Your task to perform on an android device: toggle notification dots Image 0: 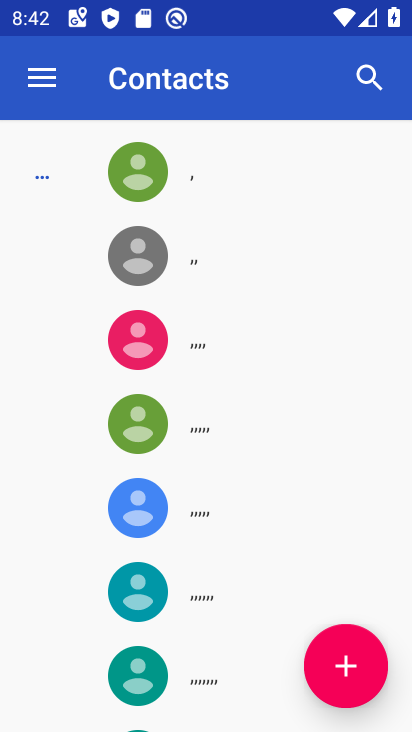
Step 0: press home button
Your task to perform on an android device: toggle notification dots Image 1: 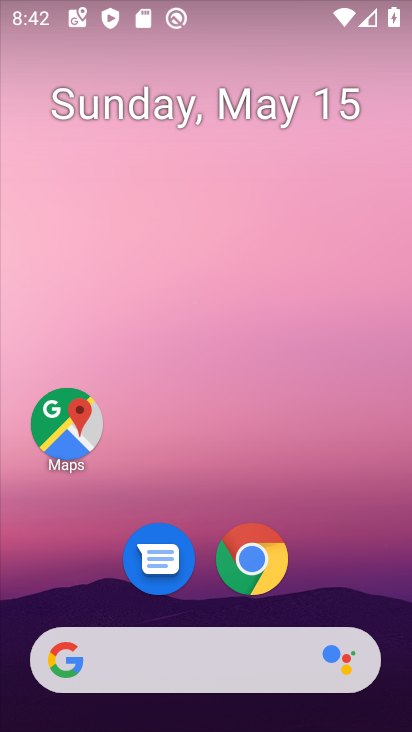
Step 1: drag from (368, 573) to (359, 180)
Your task to perform on an android device: toggle notification dots Image 2: 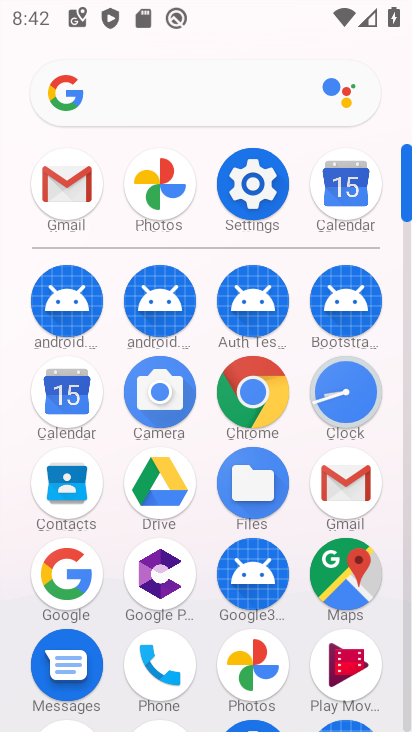
Step 2: click (243, 207)
Your task to perform on an android device: toggle notification dots Image 3: 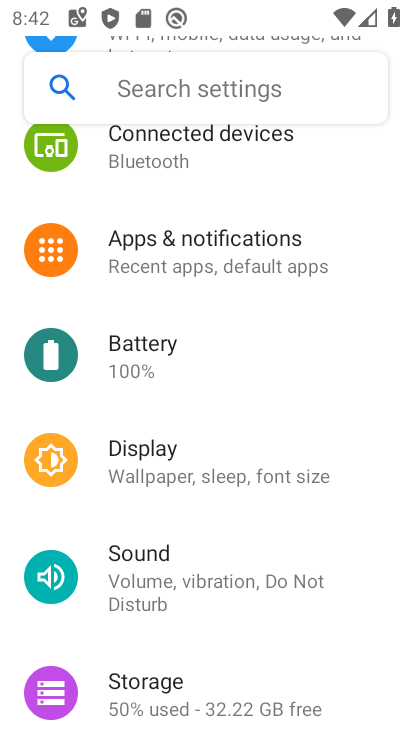
Step 3: drag from (205, 687) to (232, 581)
Your task to perform on an android device: toggle notification dots Image 4: 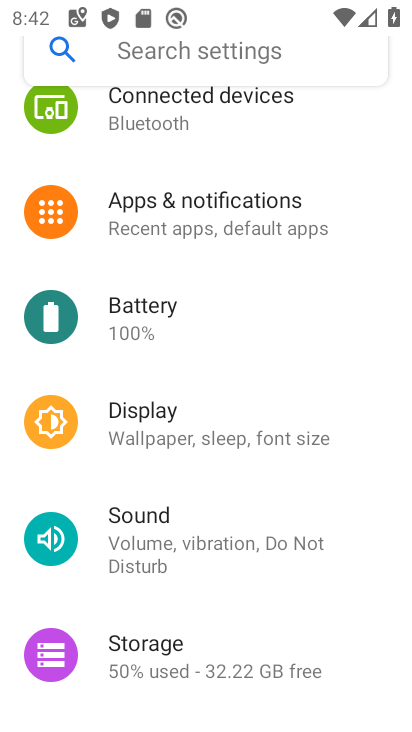
Step 4: click (232, 190)
Your task to perform on an android device: toggle notification dots Image 5: 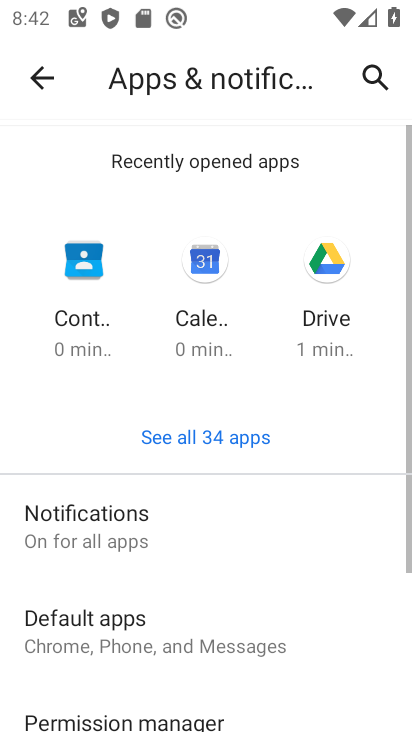
Step 5: drag from (210, 633) to (251, 439)
Your task to perform on an android device: toggle notification dots Image 6: 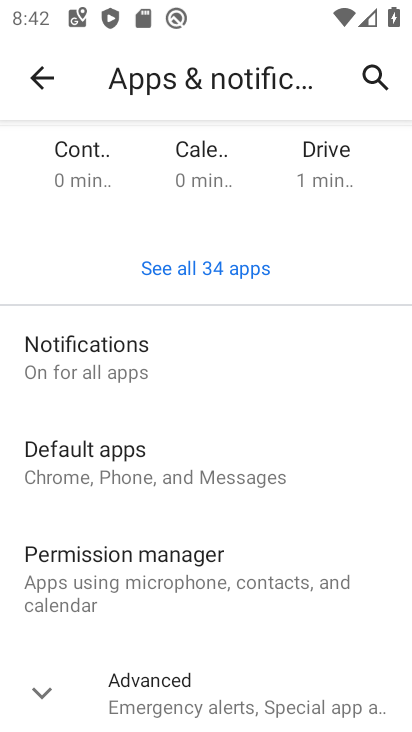
Step 6: click (170, 363)
Your task to perform on an android device: toggle notification dots Image 7: 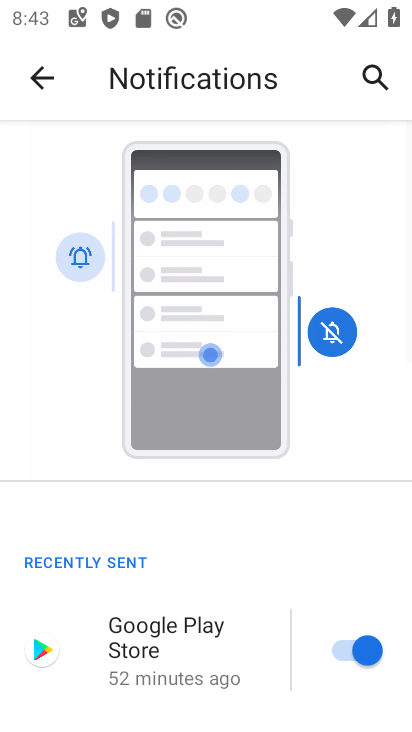
Step 7: drag from (179, 615) to (229, 302)
Your task to perform on an android device: toggle notification dots Image 8: 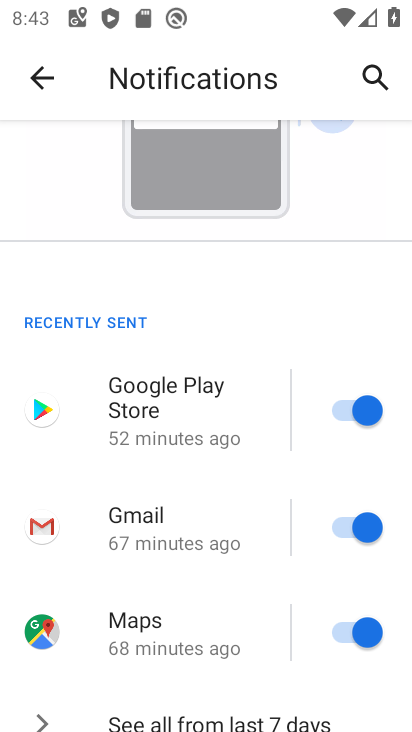
Step 8: drag from (194, 727) to (224, 465)
Your task to perform on an android device: toggle notification dots Image 9: 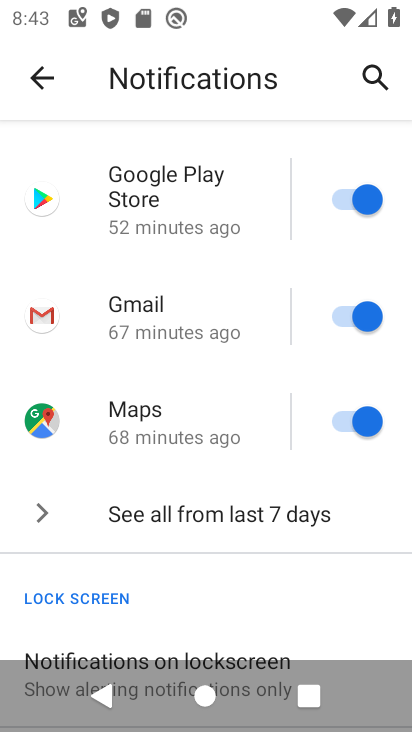
Step 9: drag from (188, 656) to (213, 352)
Your task to perform on an android device: toggle notification dots Image 10: 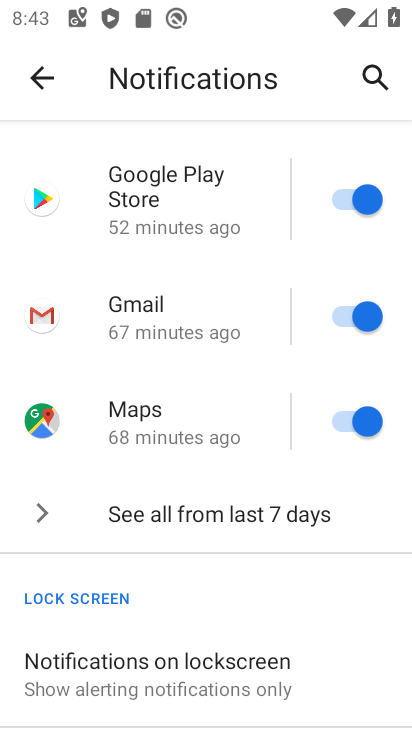
Step 10: drag from (184, 617) to (228, 269)
Your task to perform on an android device: toggle notification dots Image 11: 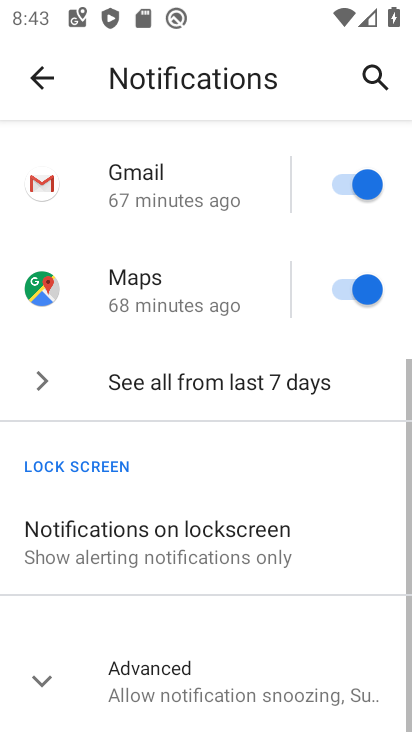
Step 11: drag from (225, 599) to (251, 397)
Your task to perform on an android device: toggle notification dots Image 12: 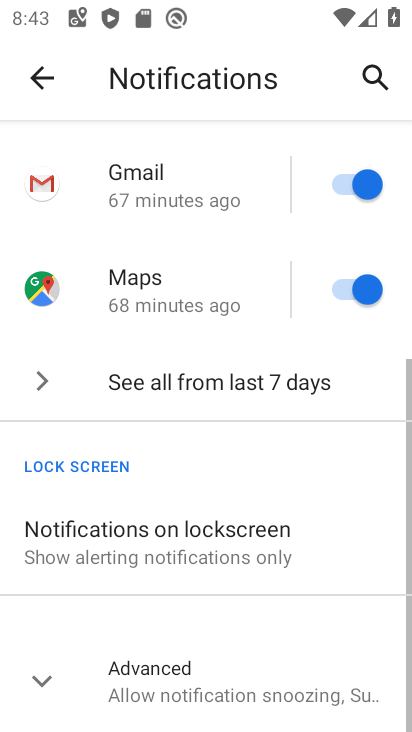
Step 12: click (230, 682)
Your task to perform on an android device: toggle notification dots Image 13: 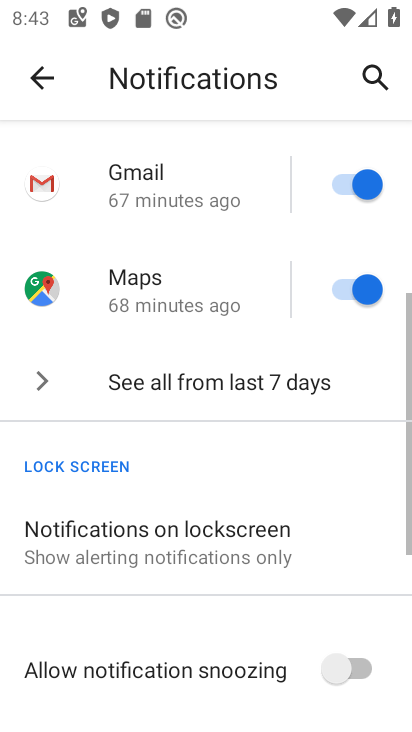
Step 13: drag from (259, 621) to (274, 259)
Your task to perform on an android device: toggle notification dots Image 14: 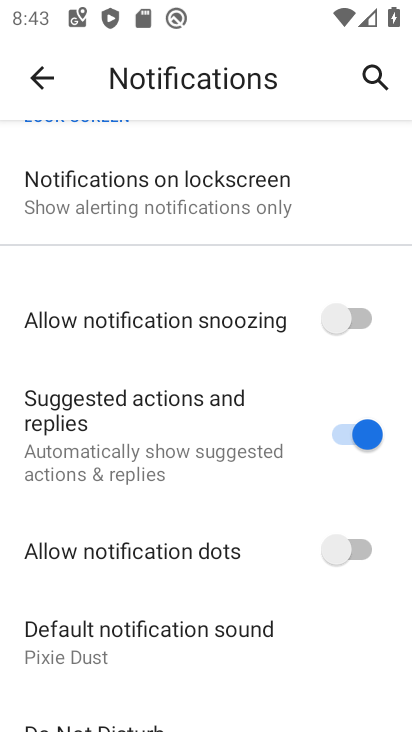
Step 14: click (347, 554)
Your task to perform on an android device: toggle notification dots Image 15: 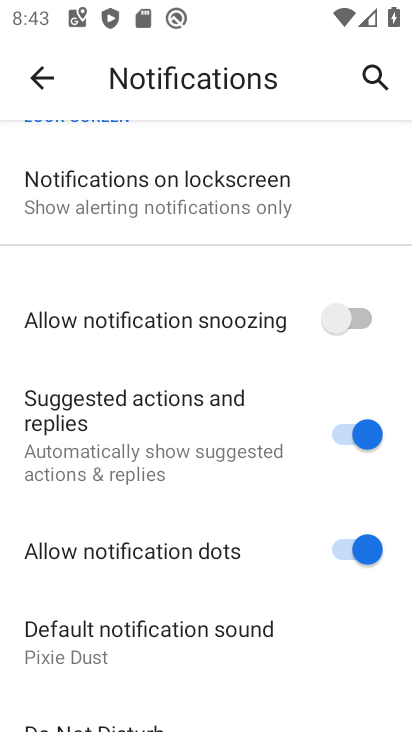
Step 15: task complete